Your task to perform on an android device: Turn on the flashlight Image 0: 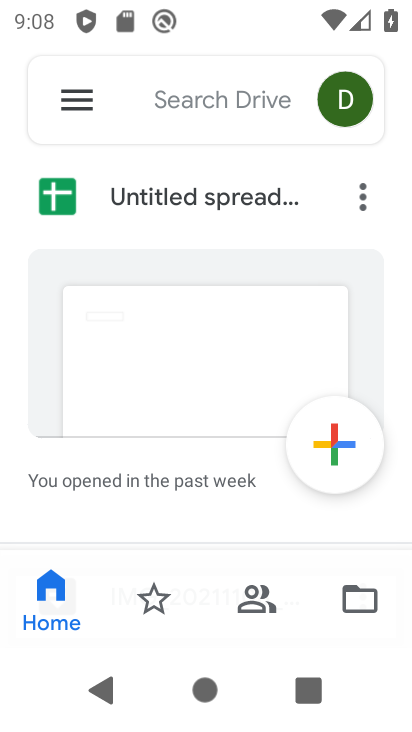
Step 0: drag from (258, 1) to (292, 322)
Your task to perform on an android device: Turn on the flashlight Image 1: 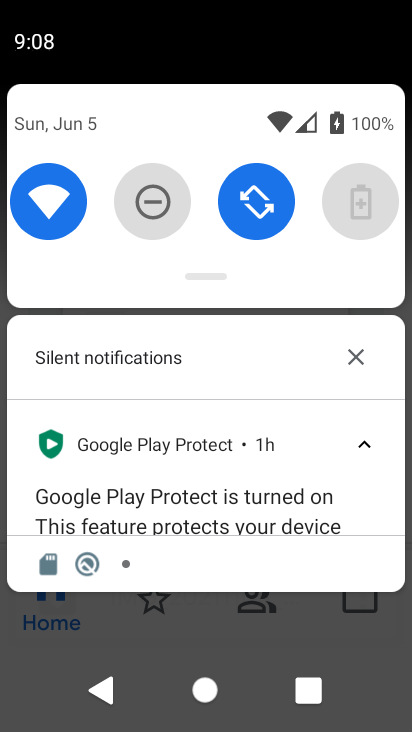
Step 1: task complete